Your task to perform on an android device: toggle location history Image 0: 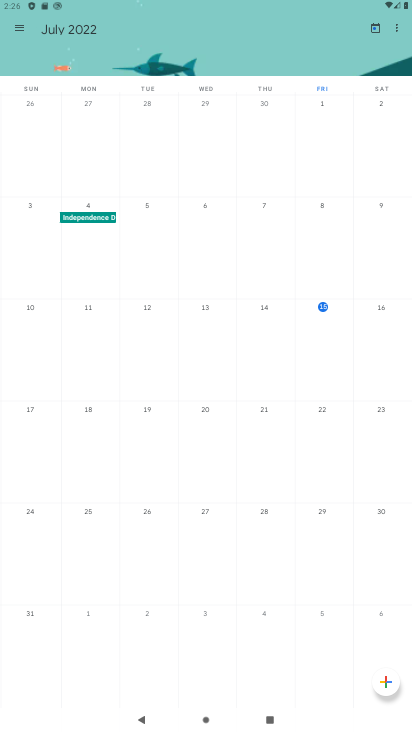
Step 0: press back button
Your task to perform on an android device: toggle location history Image 1: 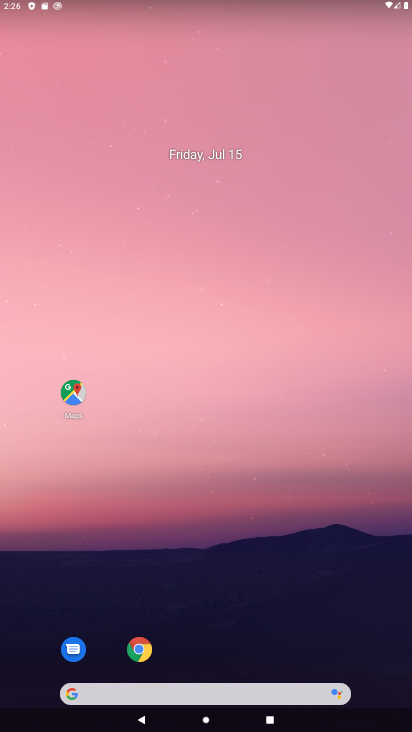
Step 1: drag from (245, 682) to (224, 125)
Your task to perform on an android device: toggle location history Image 2: 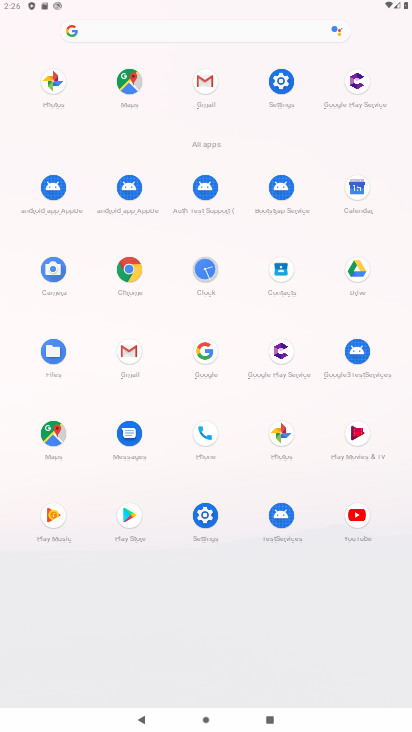
Step 2: click (289, 72)
Your task to perform on an android device: toggle location history Image 3: 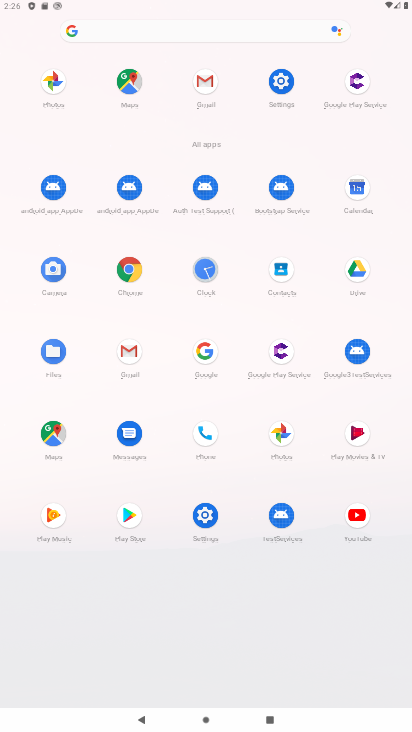
Step 3: click (270, 88)
Your task to perform on an android device: toggle location history Image 4: 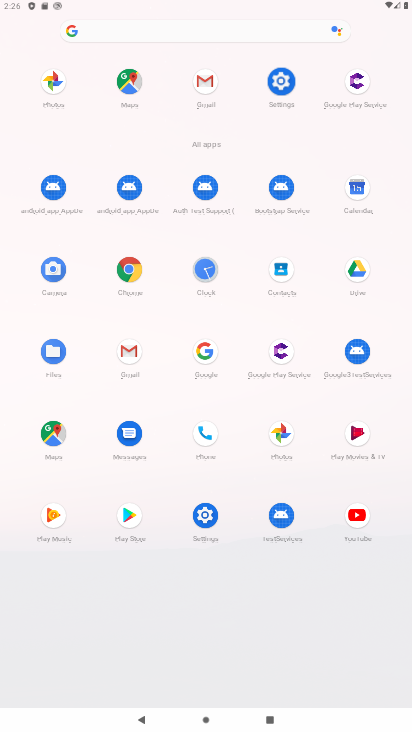
Step 4: click (271, 88)
Your task to perform on an android device: toggle location history Image 5: 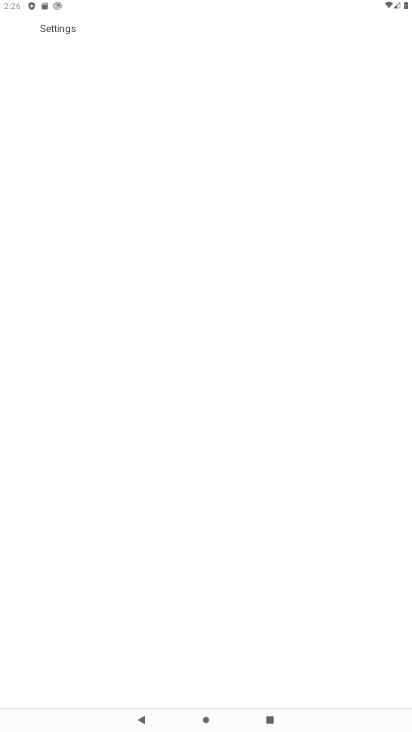
Step 5: click (271, 90)
Your task to perform on an android device: toggle location history Image 6: 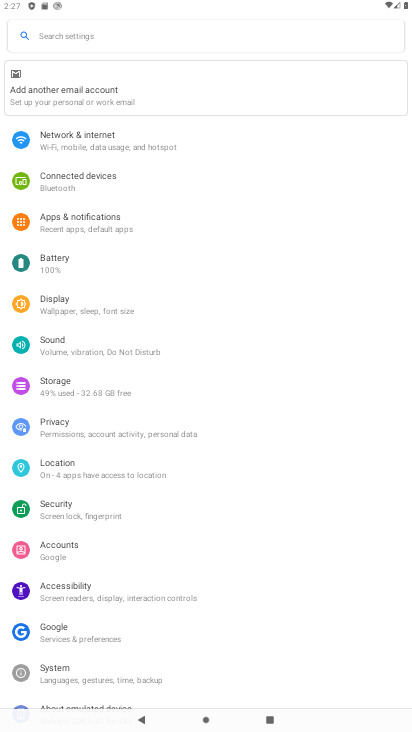
Step 6: click (65, 467)
Your task to perform on an android device: toggle location history Image 7: 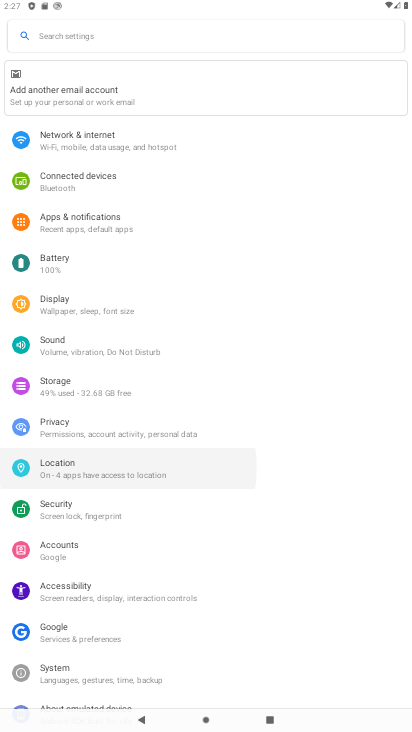
Step 7: click (65, 467)
Your task to perform on an android device: toggle location history Image 8: 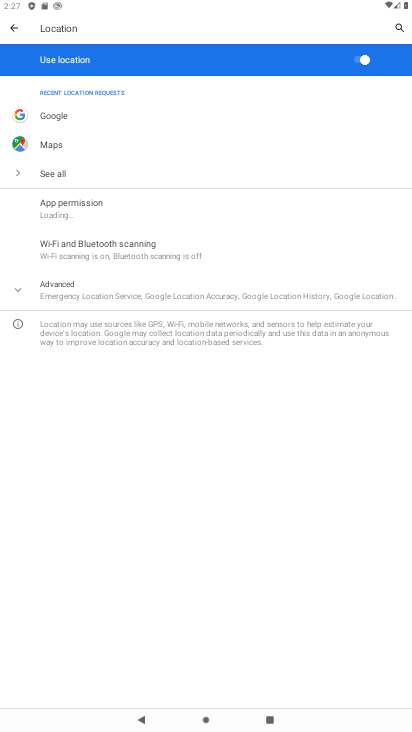
Step 8: click (72, 282)
Your task to perform on an android device: toggle location history Image 9: 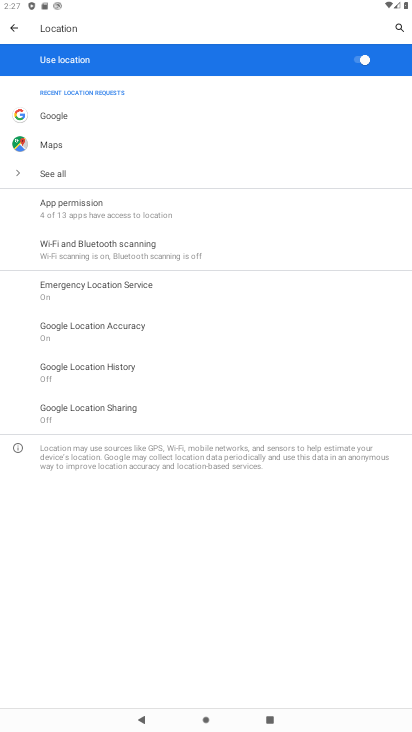
Step 9: click (71, 364)
Your task to perform on an android device: toggle location history Image 10: 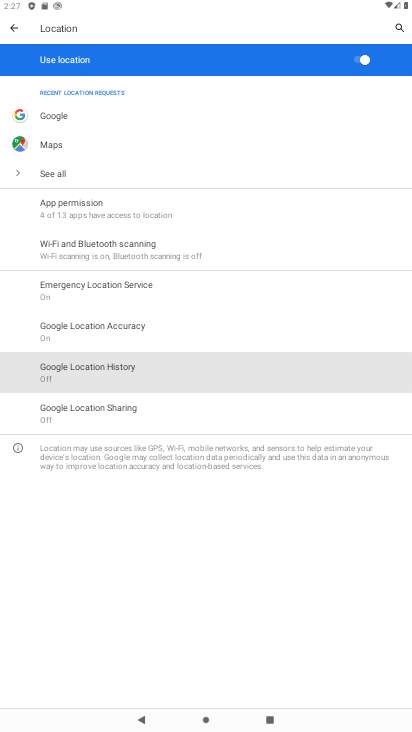
Step 10: click (71, 364)
Your task to perform on an android device: toggle location history Image 11: 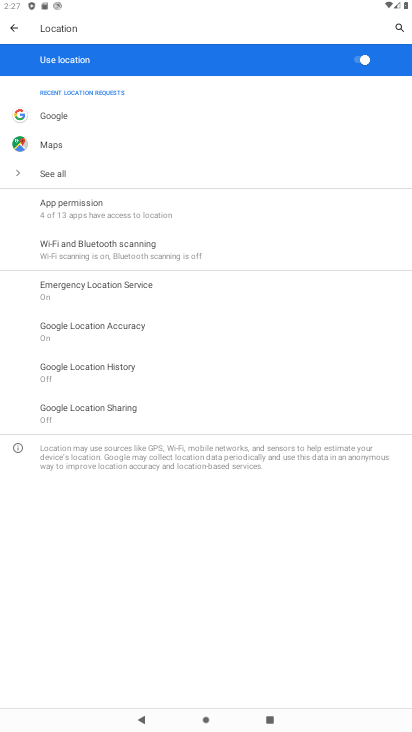
Step 11: click (71, 364)
Your task to perform on an android device: toggle location history Image 12: 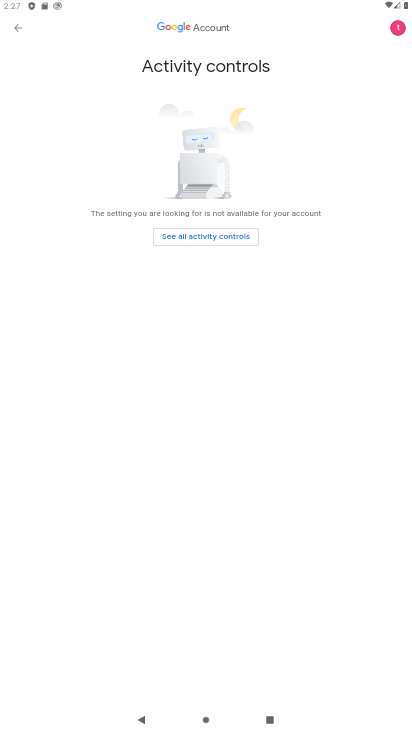
Step 12: task complete